Your task to perform on an android device: Open the stopwatch Image 0: 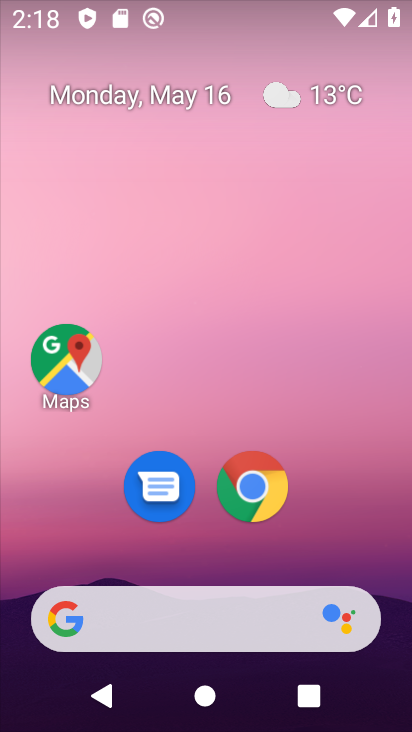
Step 0: drag from (345, 527) to (314, 8)
Your task to perform on an android device: Open the stopwatch Image 1: 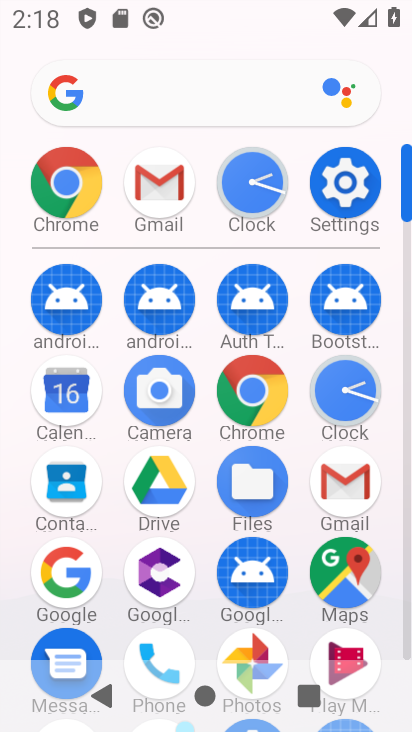
Step 1: click (336, 414)
Your task to perform on an android device: Open the stopwatch Image 2: 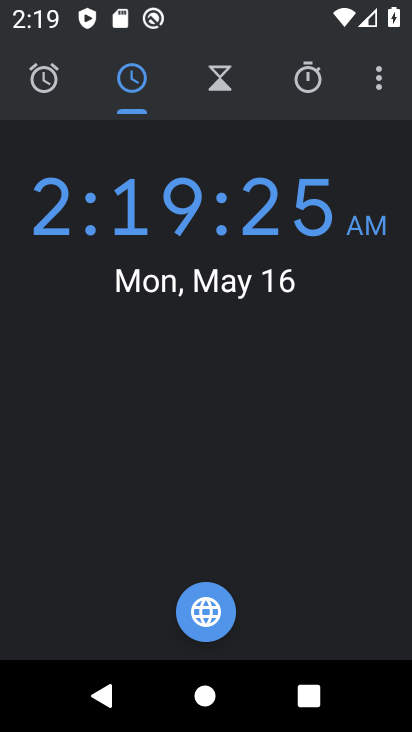
Step 2: click (288, 96)
Your task to perform on an android device: Open the stopwatch Image 3: 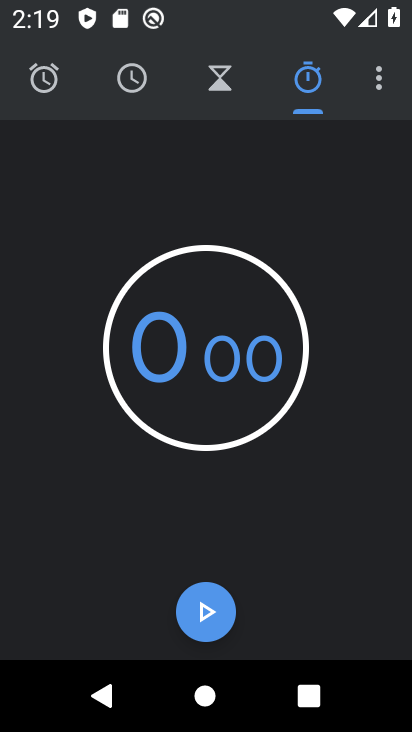
Step 3: click (250, 616)
Your task to perform on an android device: Open the stopwatch Image 4: 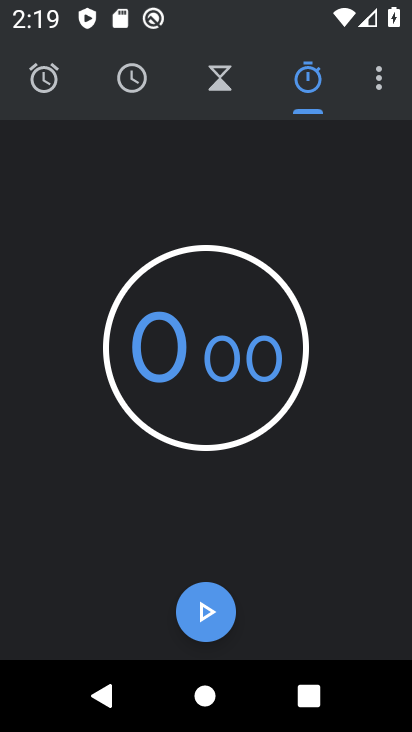
Step 4: click (230, 612)
Your task to perform on an android device: Open the stopwatch Image 5: 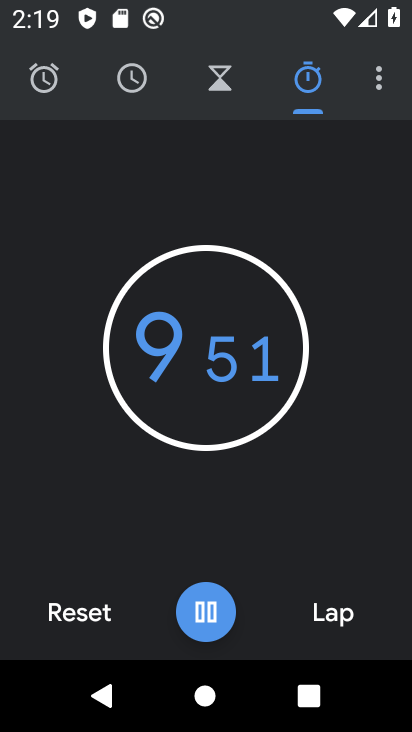
Step 5: task complete